Your task to perform on an android device: turn pop-ups on in chrome Image 0: 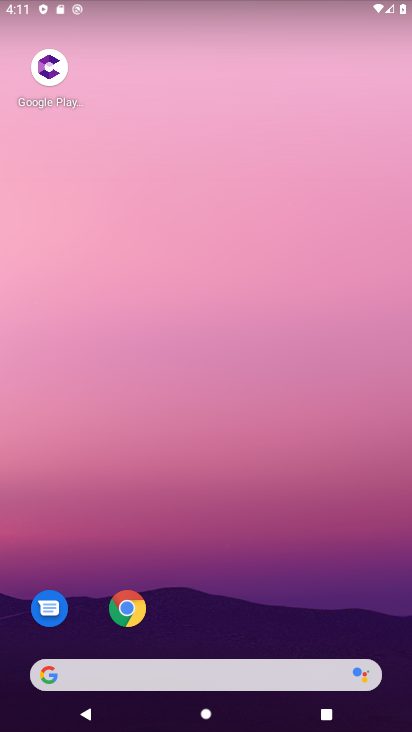
Step 0: click (125, 611)
Your task to perform on an android device: turn pop-ups on in chrome Image 1: 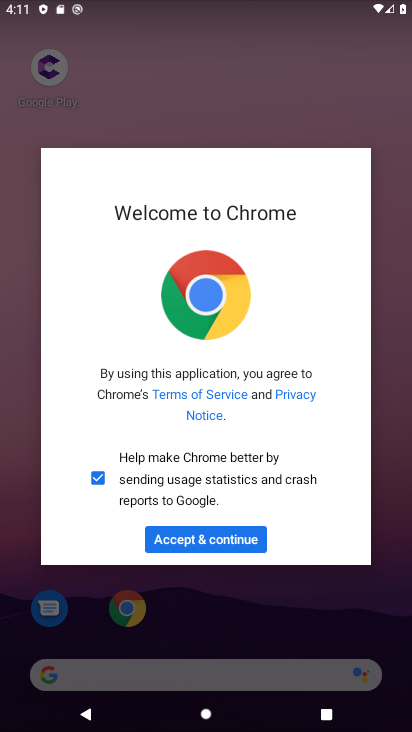
Step 1: click (193, 538)
Your task to perform on an android device: turn pop-ups on in chrome Image 2: 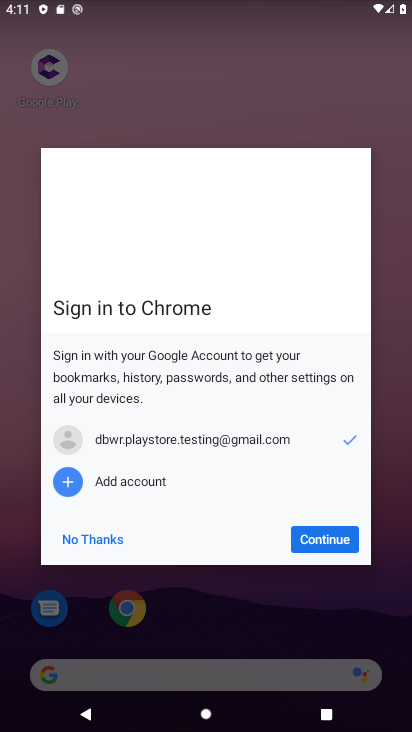
Step 2: click (309, 540)
Your task to perform on an android device: turn pop-ups on in chrome Image 3: 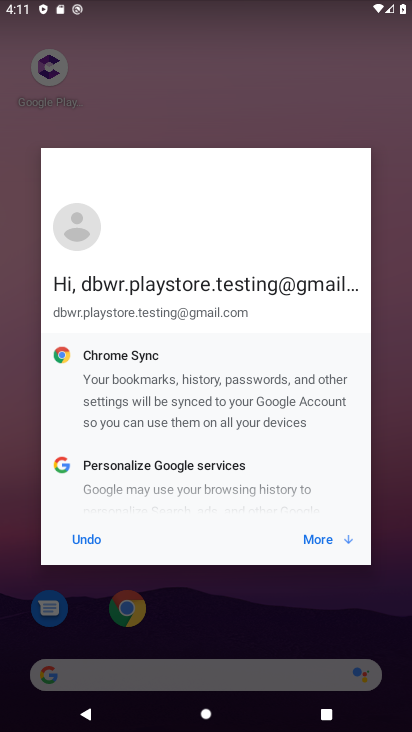
Step 3: click (309, 540)
Your task to perform on an android device: turn pop-ups on in chrome Image 4: 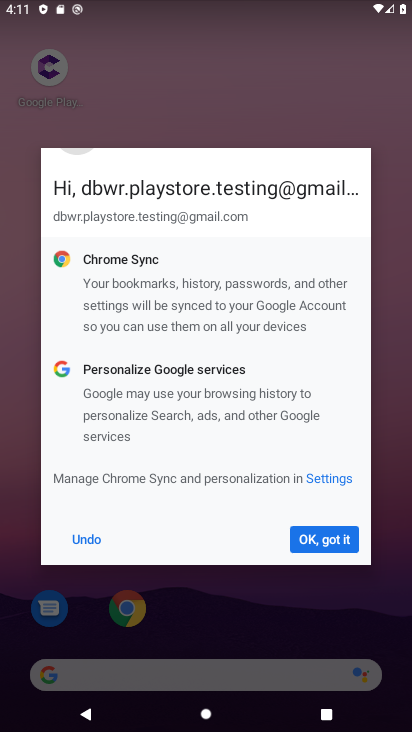
Step 4: click (309, 540)
Your task to perform on an android device: turn pop-ups on in chrome Image 5: 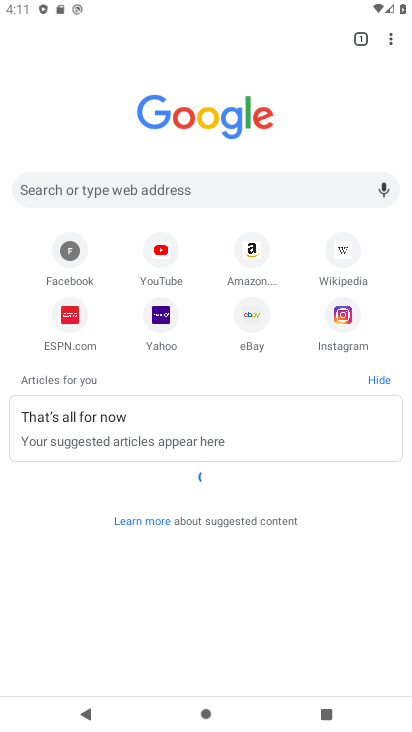
Step 5: click (392, 38)
Your task to perform on an android device: turn pop-ups on in chrome Image 6: 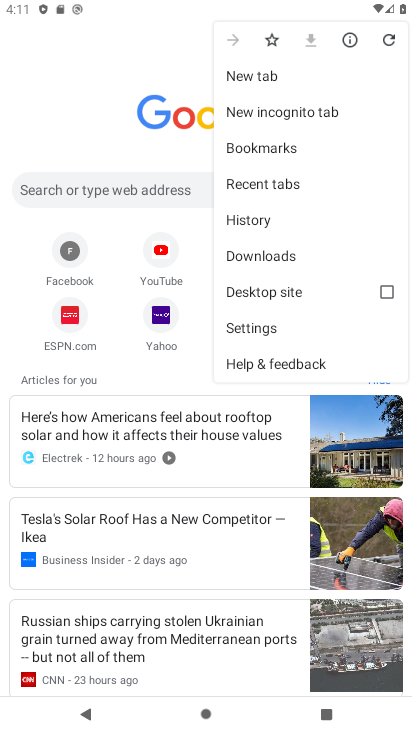
Step 6: click (260, 327)
Your task to perform on an android device: turn pop-ups on in chrome Image 7: 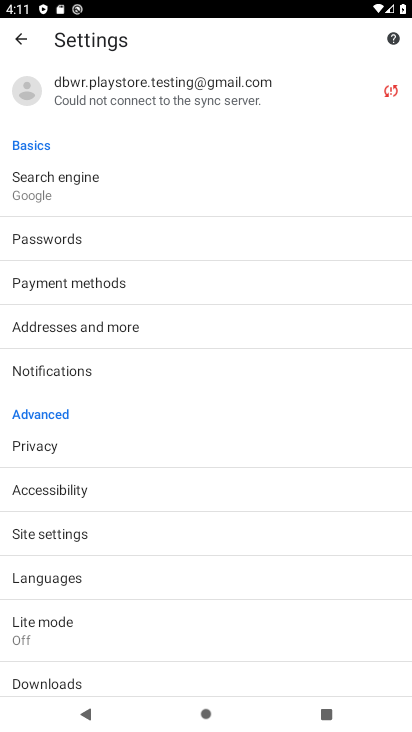
Step 7: click (60, 532)
Your task to perform on an android device: turn pop-ups on in chrome Image 8: 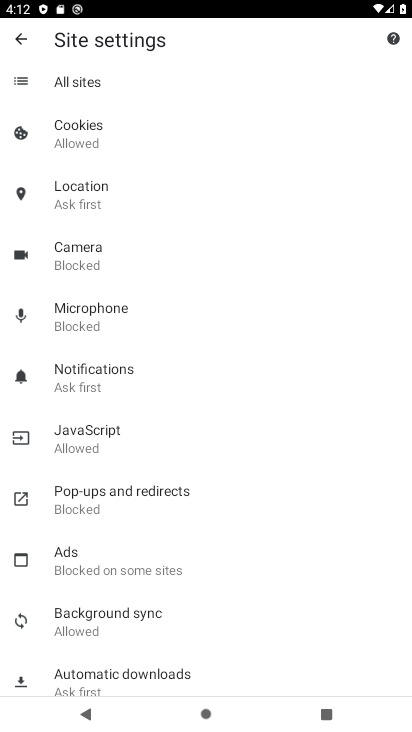
Step 8: click (84, 491)
Your task to perform on an android device: turn pop-ups on in chrome Image 9: 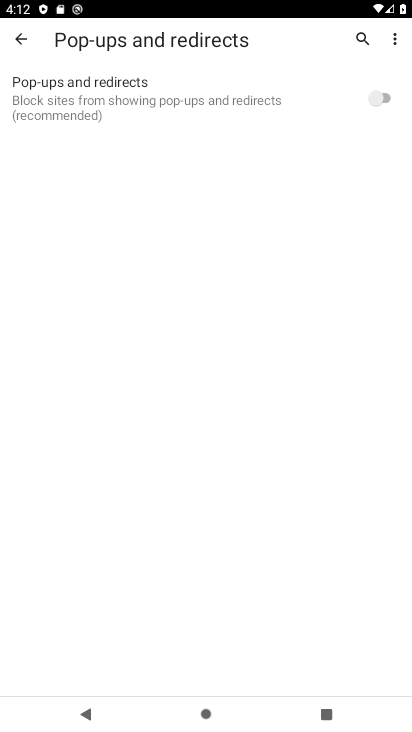
Step 9: click (378, 97)
Your task to perform on an android device: turn pop-ups on in chrome Image 10: 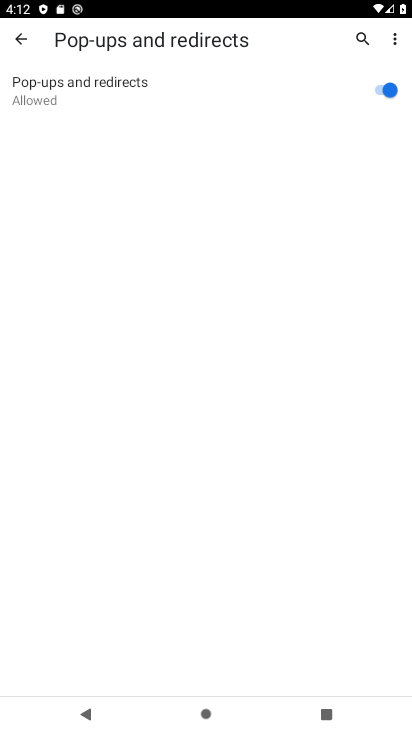
Step 10: task complete